Your task to perform on an android device: Open the phone app and click the voicemail tab. Image 0: 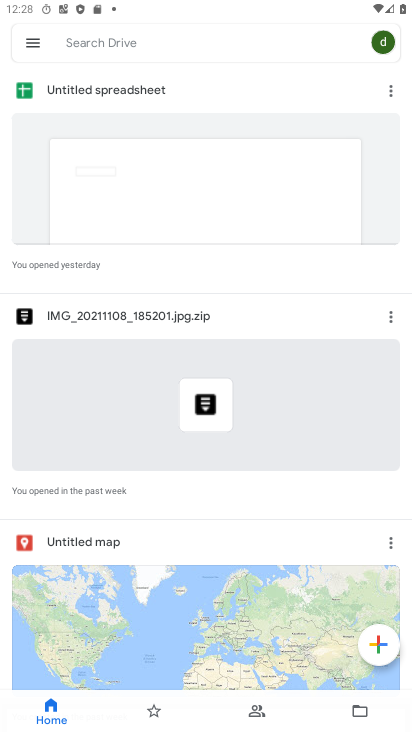
Step 0: press home button
Your task to perform on an android device: Open the phone app and click the voicemail tab. Image 1: 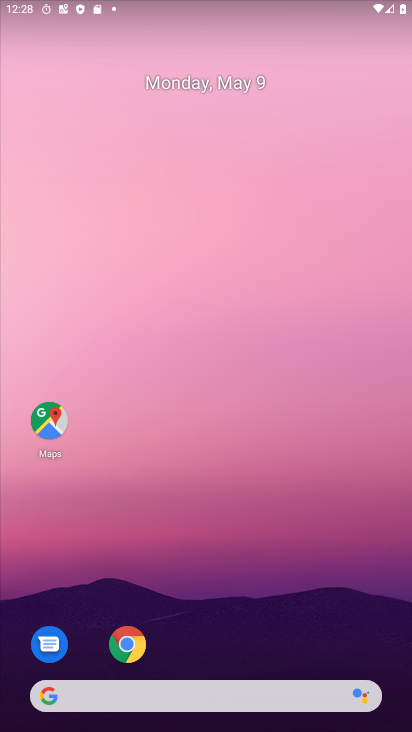
Step 1: drag from (368, 650) to (116, 150)
Your task to perform on an android device: Open the phone app and click the voicemail tab. Image 2: 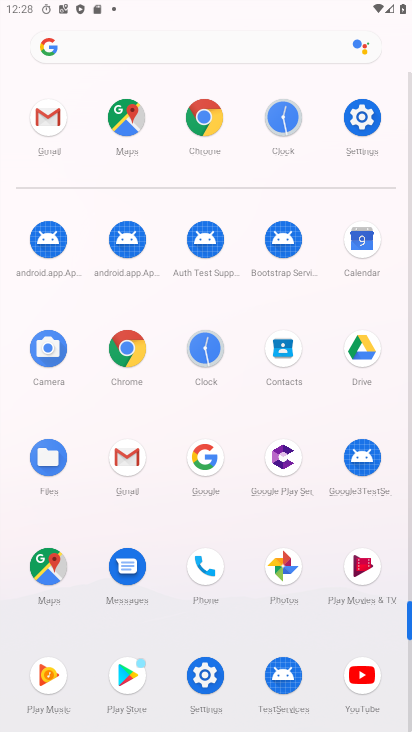
Step 2: click (192, 569)
Your task to perform on an android device: Open the phone app and click the voicemail tab. Image 3: 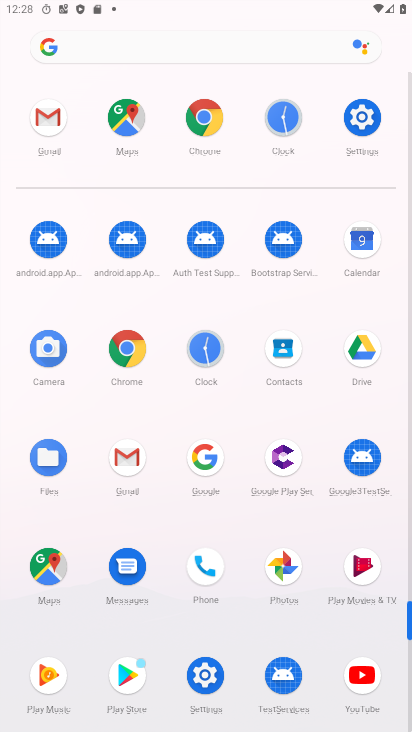
Step 3: click (192, 569)
Your task to perform on an android device: Open the phone app and click the voicemail tab. Image 4: 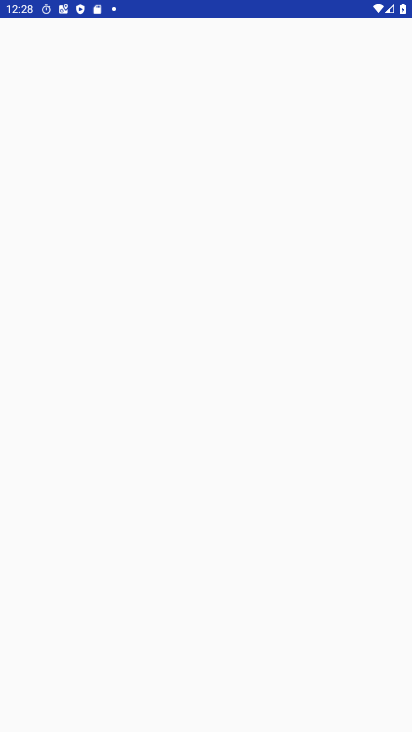
Step 4: click (196, 557)
Your task to perform on an android device: Open the phone app and click the voicemail tab. Image 5: 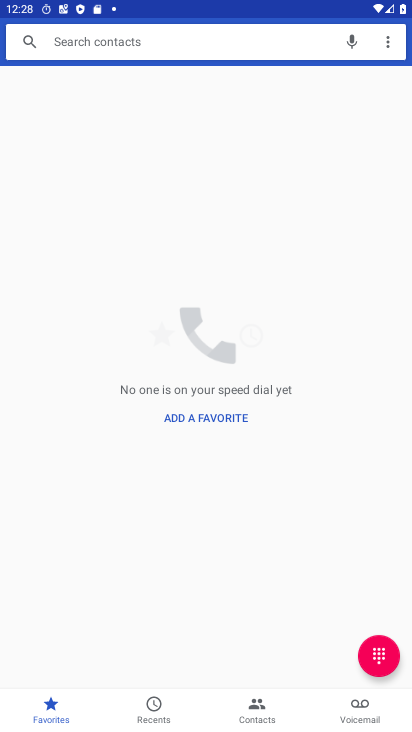
Step 5: click (358, 709)
Your task to perform on an android device: Open the phone app and click the voicemail tab. Image 6: 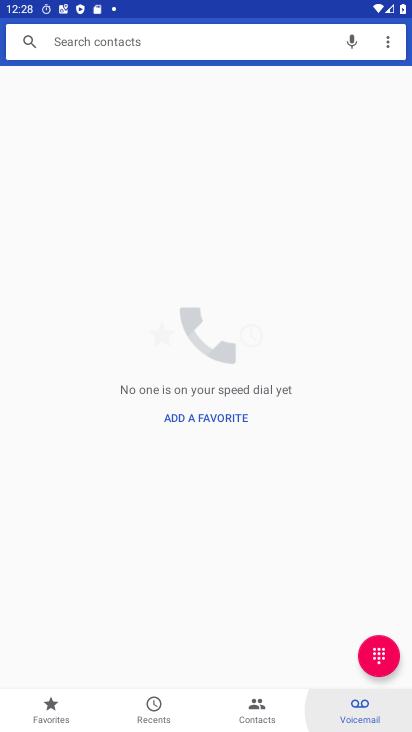
Step 6: click (358, 709)
Your task to perform on an android device: Open the phone app and click the voicemail tab. Image 7: 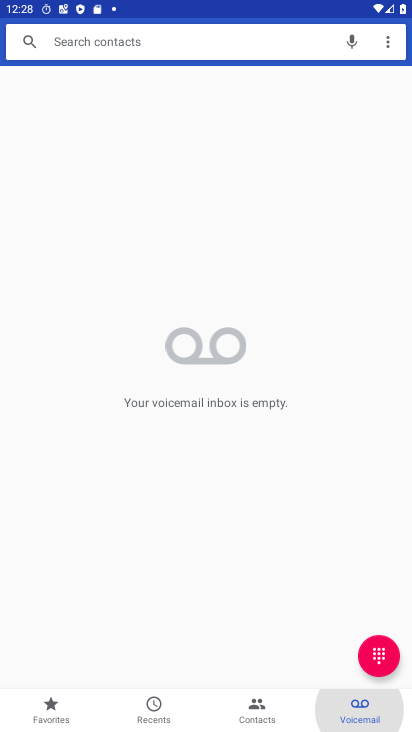
Step 7: click (358, 705)
Your task to perform on an android device: Open the phone app and click the voicemail tab. Image 8: 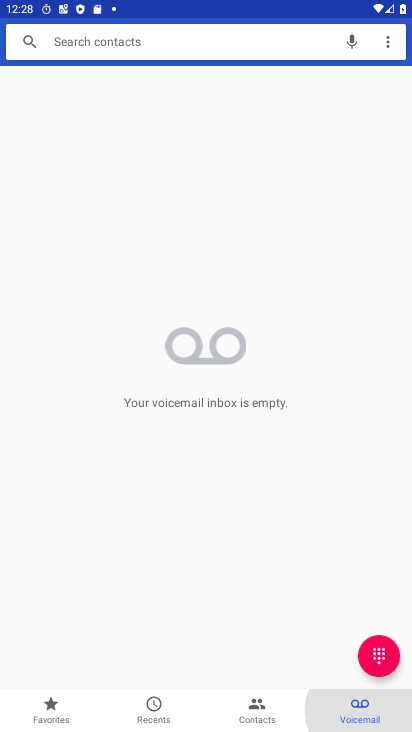
Step 8: click (354, 673)
Your task to perform on an android device: Open the phone app and click the voicemail tab. Image 9: 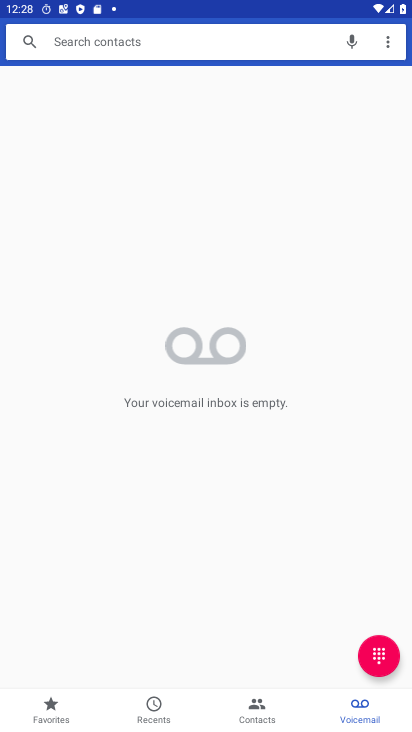
Step 9: task complete